Your task to perform on an android device: Is it going to rain today? Image 0: 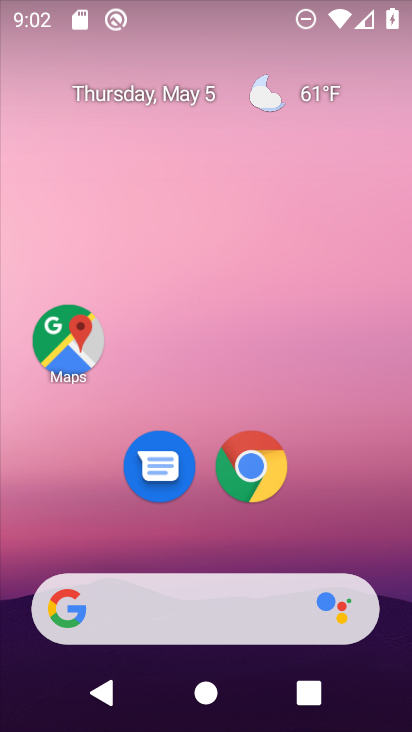
Step 0: click (276, 100)
Your task to perform on an android device: Is it going to rain today? Image 1: 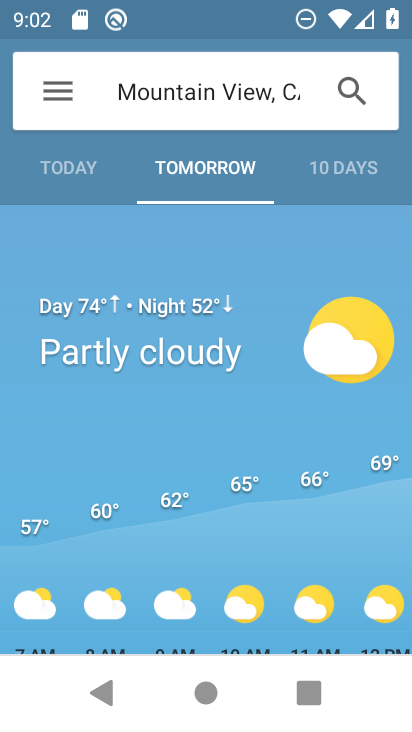
Step 1: click (76, 178)
Your task to perform on an android device: Is it going to rain today? Image 2: 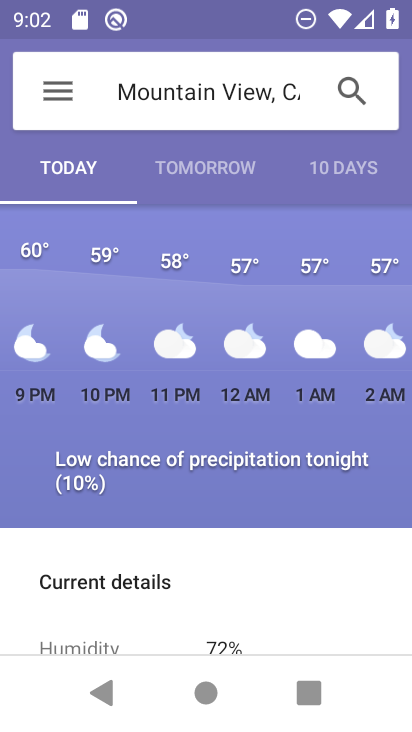
Step 2: task complete